Your task to perform on an android device: Open Google Maps Image 0: 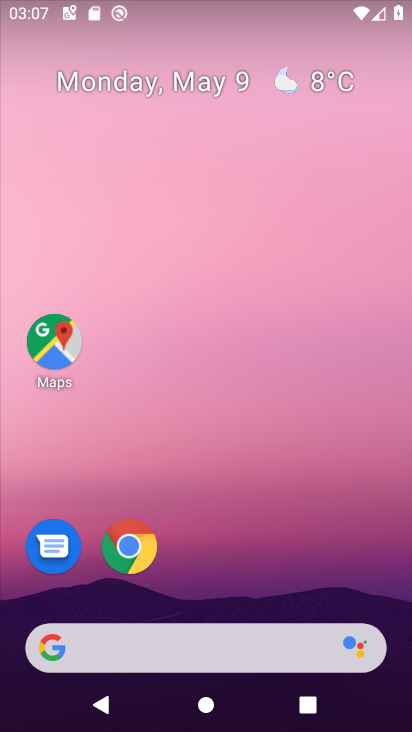
Step 0: click (56, 344)
Your task to perform on an android device: Open Google Maps Image 1: 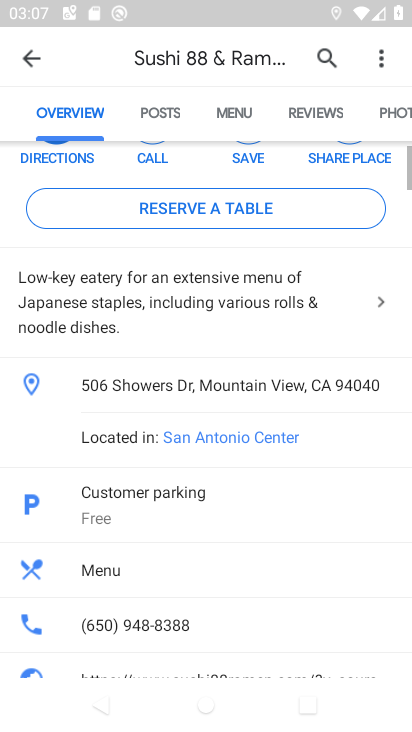
Step 1: click (32, 54)
Your task to perform on an android device: Open Google Maps Image 2: 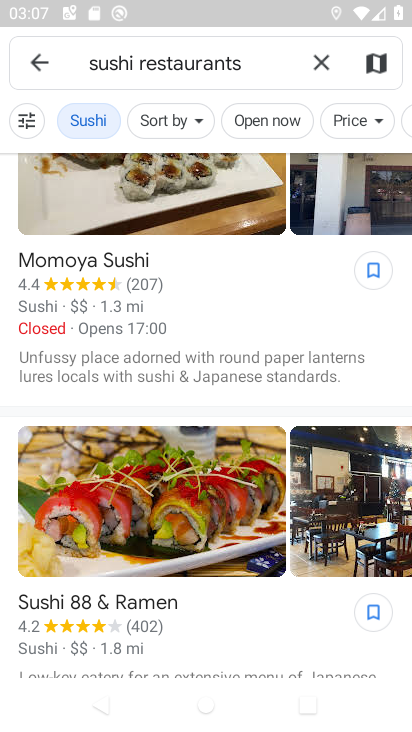
Step 2: click (319, 50)
Your task to perform on an android device: Open Google Maps Image 3: 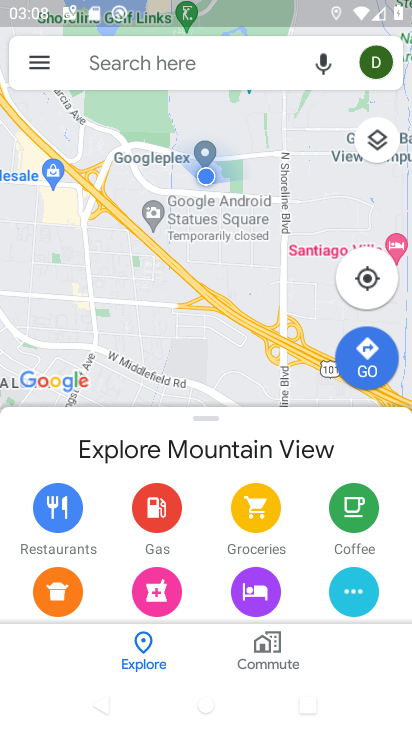
Step 3: task complete